Your task to perform on an android device: turn on the 24-hour format for clock Image 0: 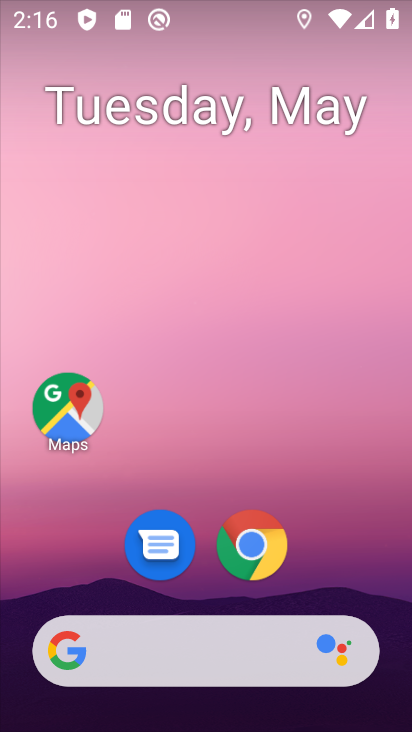
Step 0: press home button
Your task to perform on an android device: turn on the 24-hour format for clock Image 1: 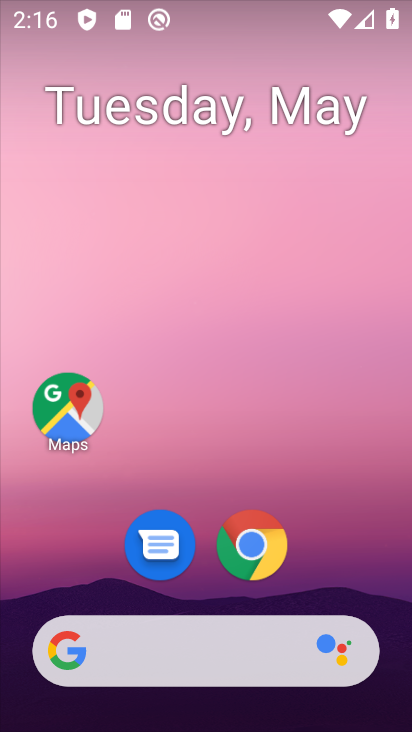
Step 1: drag from (232, 469) to (325, 24)
Your task to perform on an android device: turn on the 24-hour format for clock Image 2: 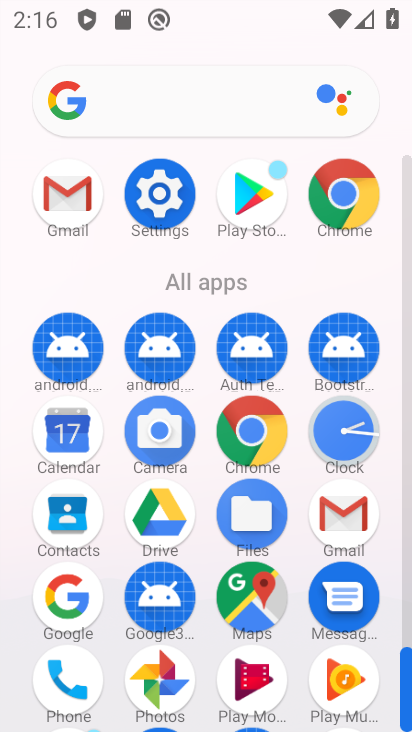
Step 2: click (349, 439)
Your task to perform on an android device: turn on the 24-hour format for clock Image 3: 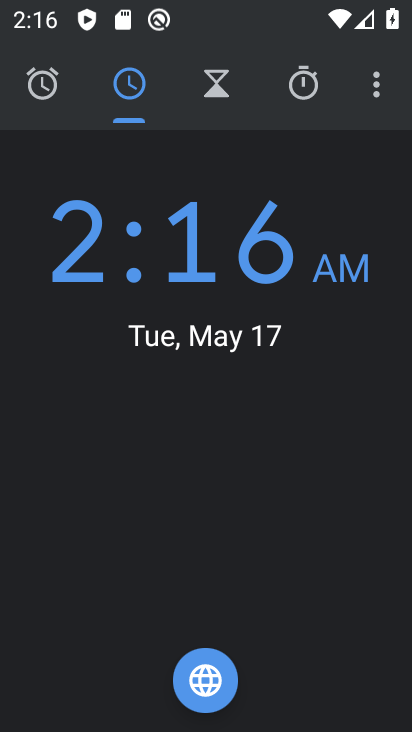
Step 3: click (372, 84)
Your task to perform on an android device: turn on the 24-hour format for clock Image 4: 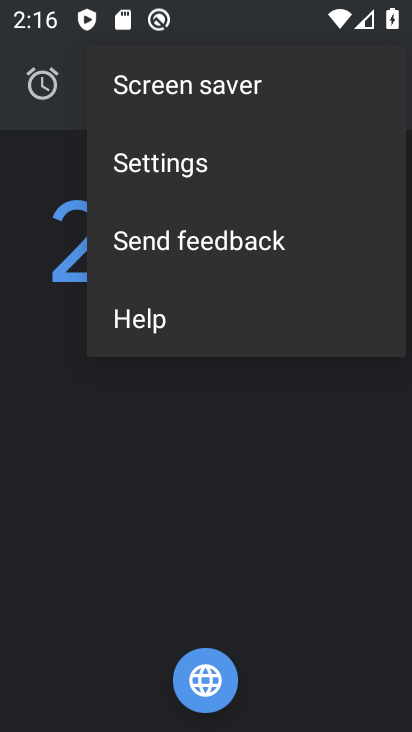
Step 4: click (163, 170)
Your task to perform on an android device: turn on the 24-hour format for clock Image 5: 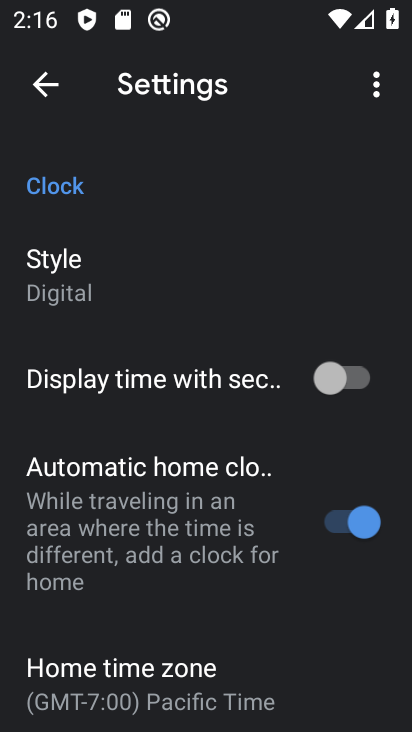
Step 5: drag from (164, 651) to (212, 325)
Your task to perform on an android device: turn on the 24-hour format for clock Image 6: 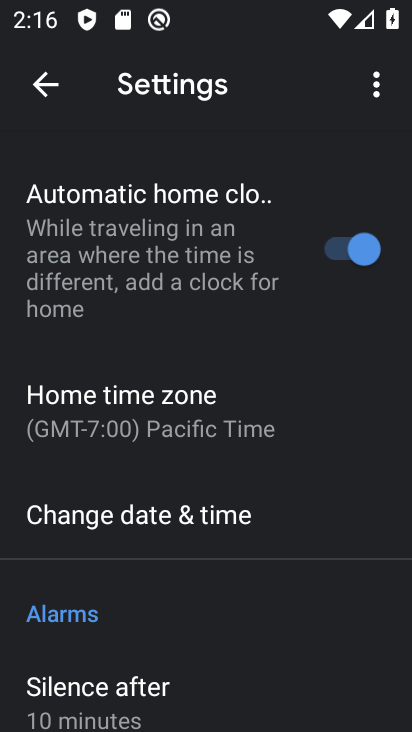
Step 6: click (142, 523)
Your task to perform on an android device: turn on the 24-hour format for clock Image 7: 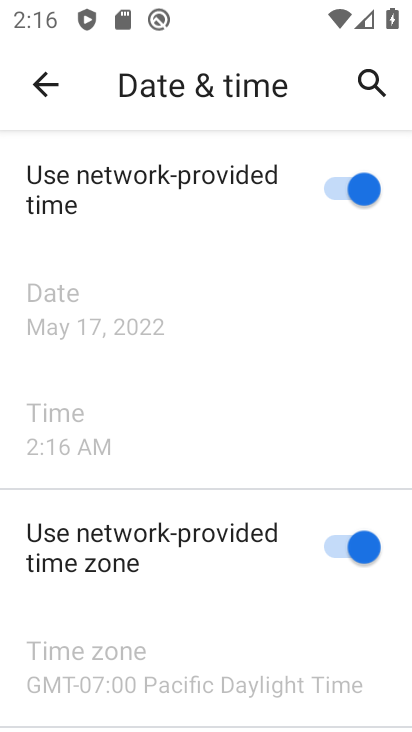
Step 7: drag from (165, 667) to (214, 359)
Your task to perform on an android device: turn on the 24-hour format for clock Image 8: 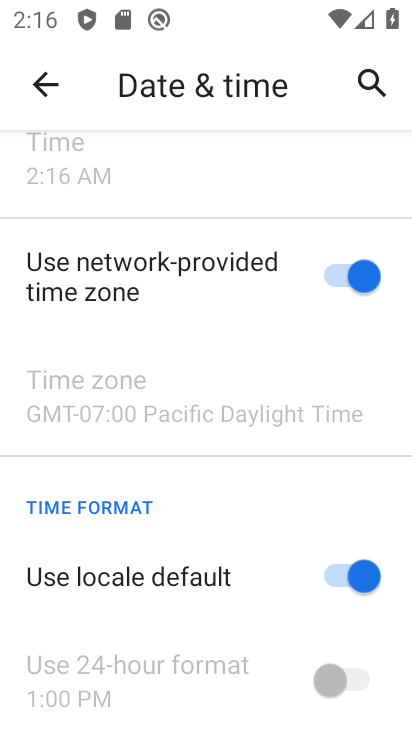
Step 8: click (346, 588)
Your task to perform on an android device: turn on the 24-hour format for clock Image 9: 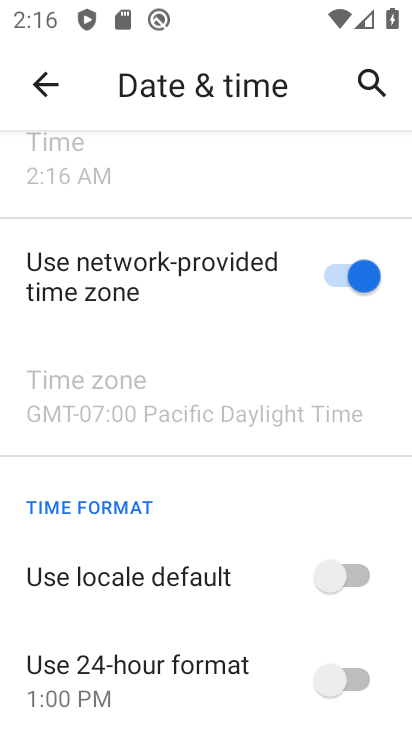
Step 9: click (350, 685)
Your task to perform on an android device: turn on the 24-hour format for clock Image 10: 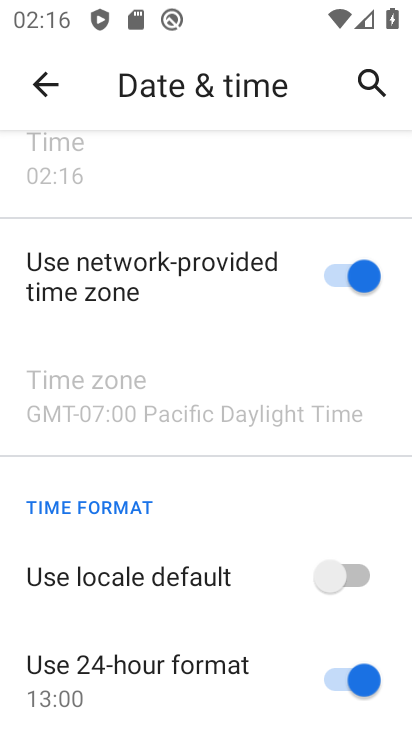
Step 10: task complete